Your task to perform on an android device: empty trash in google photos Image 0: 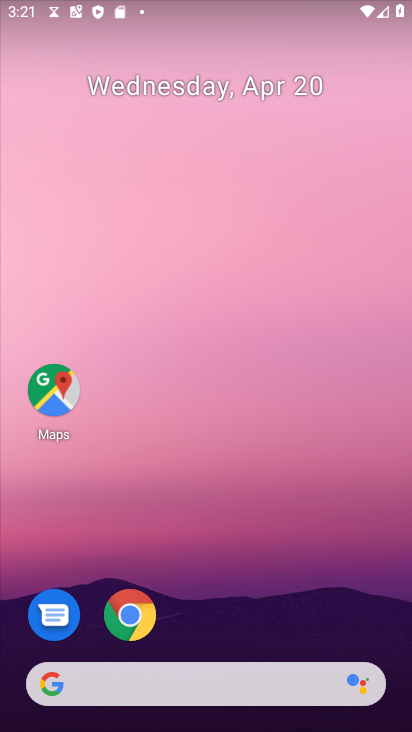
Step 0: drag from (237, 518) to (304, 195)
Your task to perform on an android device: empty trash in google photos Image 1: 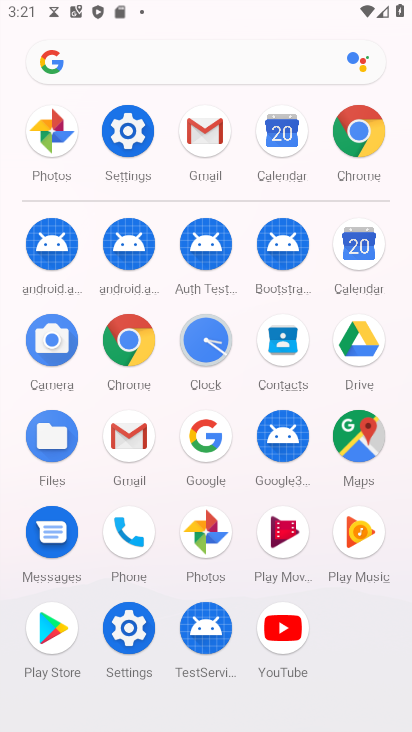
Step 1: click (208, 532)
Your task to perform on an android device: empty trash in google photos Image 2: 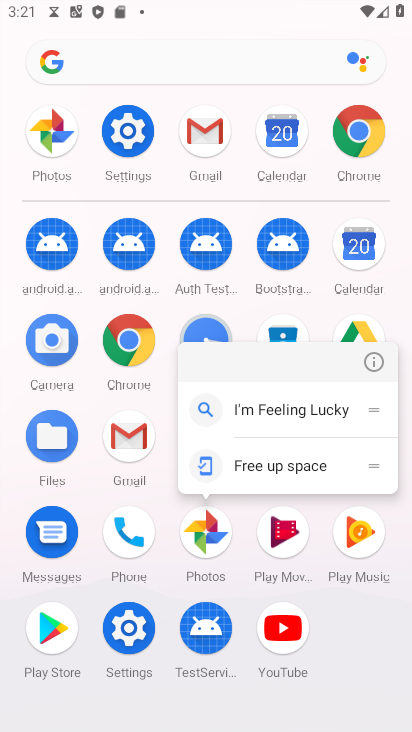
Step 2: click (362, 369)
Your task to perform on an android device: empty trash in google photos Image 3: 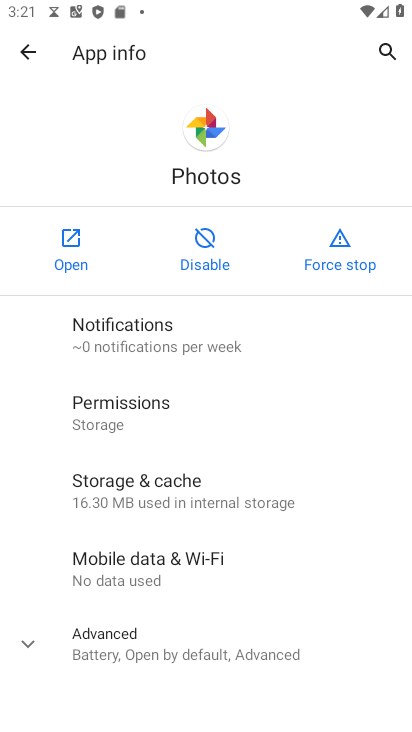
Step 3: click (61, 249)
Your task to perform on an android device: empty trash in google photos Image 4: 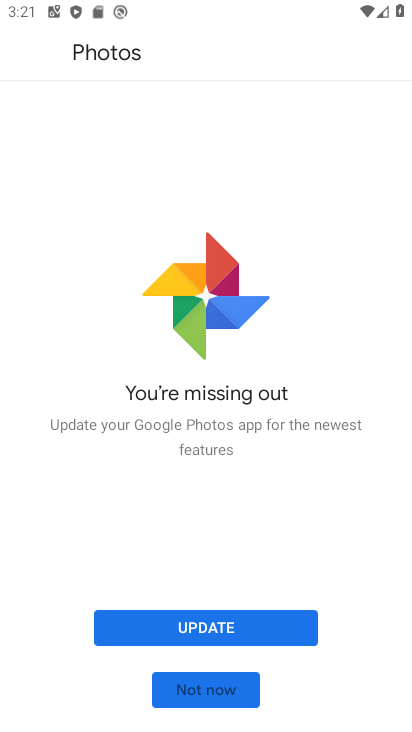
Step 4: click (199, 684)
Your task to perform on an android device: empty trash in google photos Image 5: 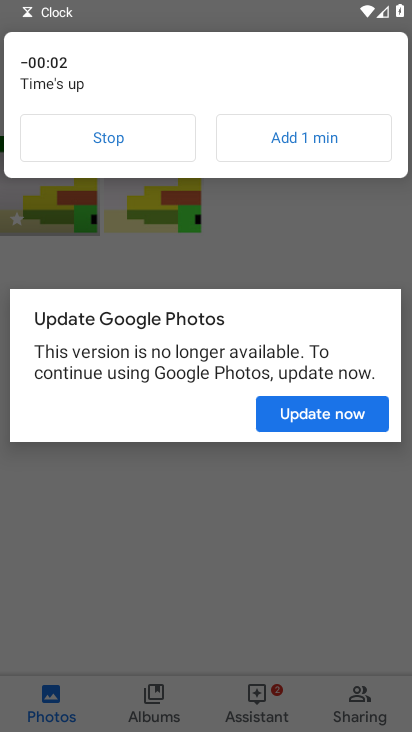
Step 5: click (131, 127)
Your task to perform on an android device: empty trash in google photos Image 6: 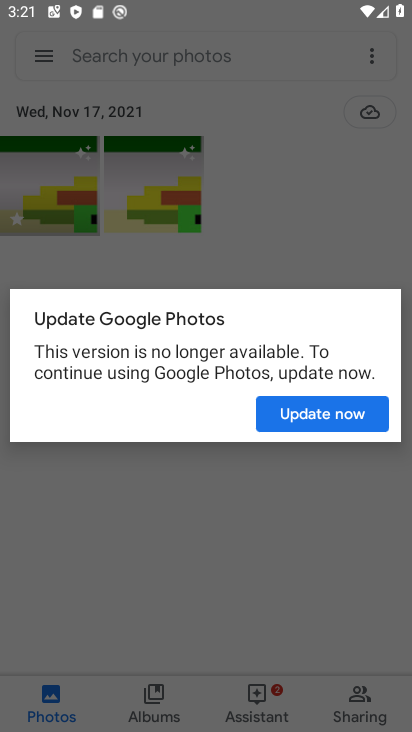
Step 6: click (311, 416)
Your task to perform on an android device: empty trash in google photos Image 7: 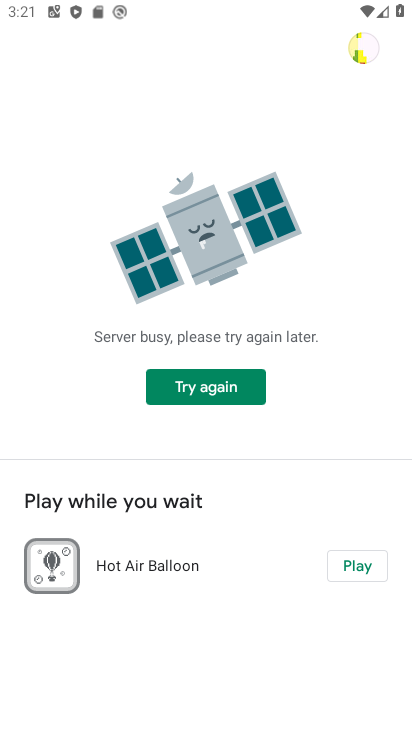
Step 7: press back button
Your task to perform on an android device: empty trash in google photos Image 8: 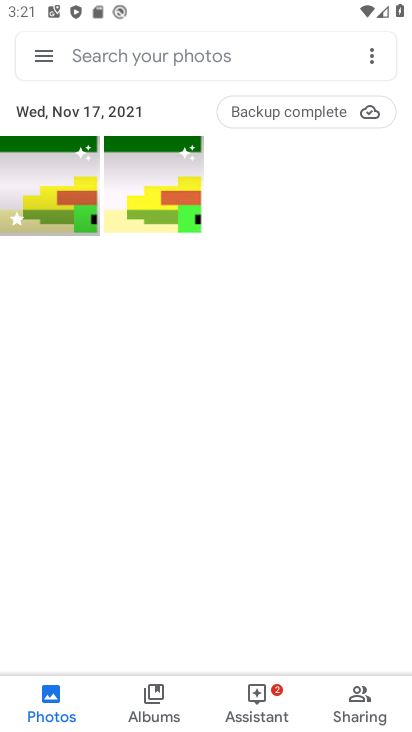
Step 8: click (53, 54)
Your task to perform on an android device: empty trash in google photos Image 9: 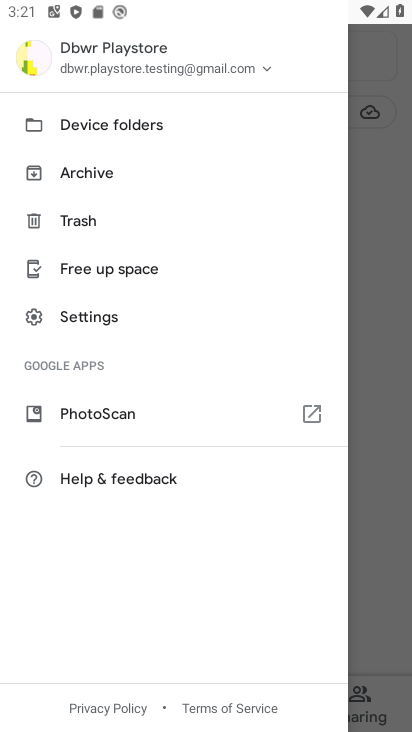
Step 9: click (83, 216)
Your task to perform on an android device: empty trash in google photos Image 10: 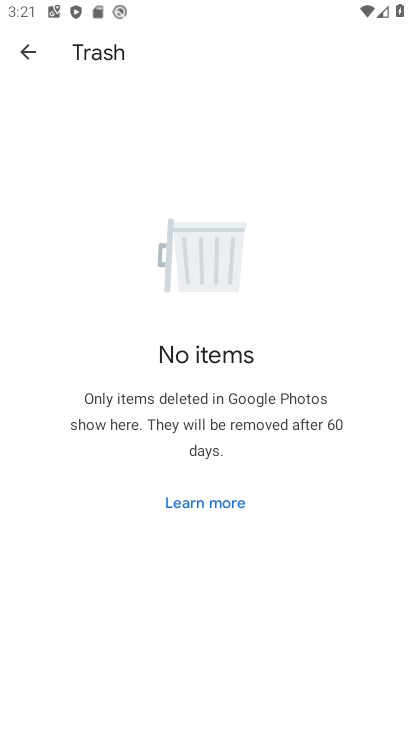
Step 10: task complete